Your task to perform on an android device: refresh tabs in the chrome app Image 0: 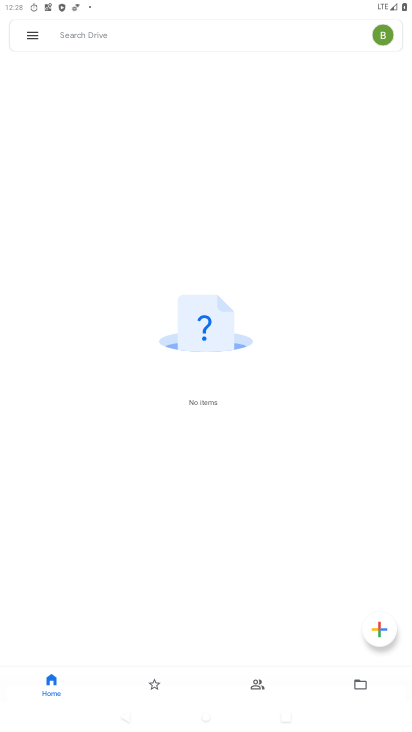
Step 0: press home button
Your task to perform on an android device: refresh tabs in the chrome app Image 1: 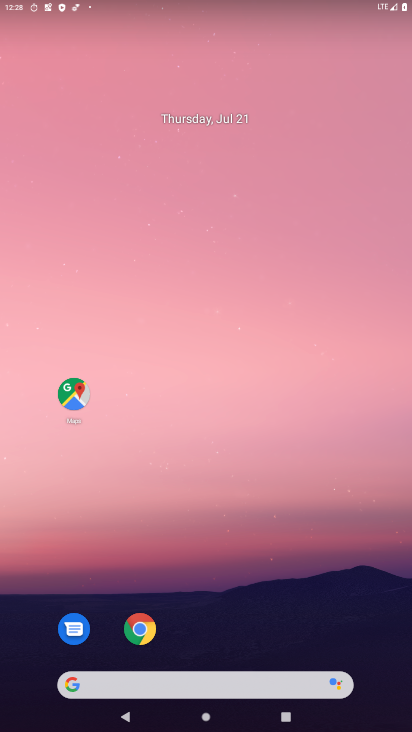
Step 1: drag from (237, 648) to (224, 7)
Your task to perform on an android device: refresh tabs in the chrome app Image 2: 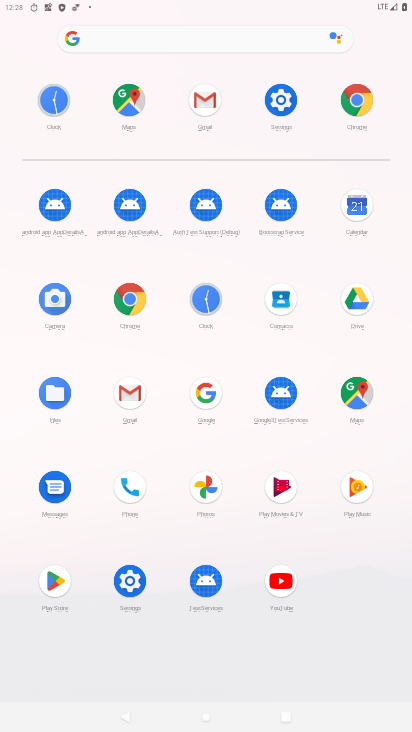
Step 2: click (131, 304)
Your task to perform on an android device: refresh tabs in the chrome app Image 3: 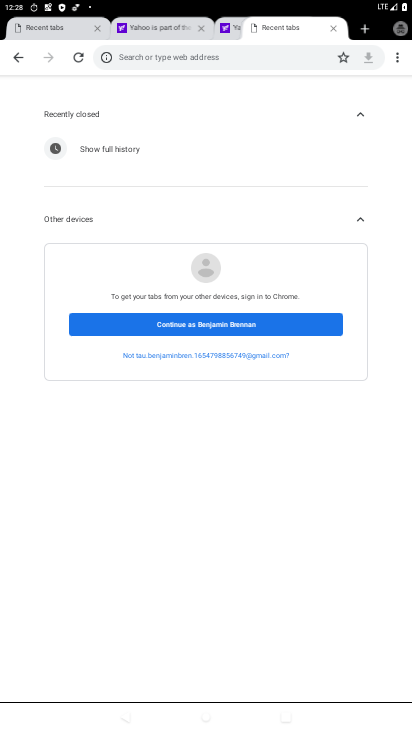
Step 3: drag from (393, 50) to (207, 144)
Your task to perform on an android device: refresh tabs in the chrome app Image 4: 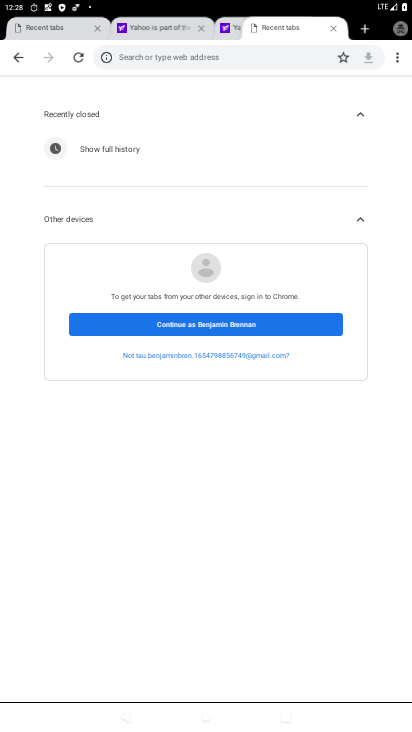
Step 4: click (80, 56)
Your task to perform on an android device: refresh tabs in the chrome app Image 5: 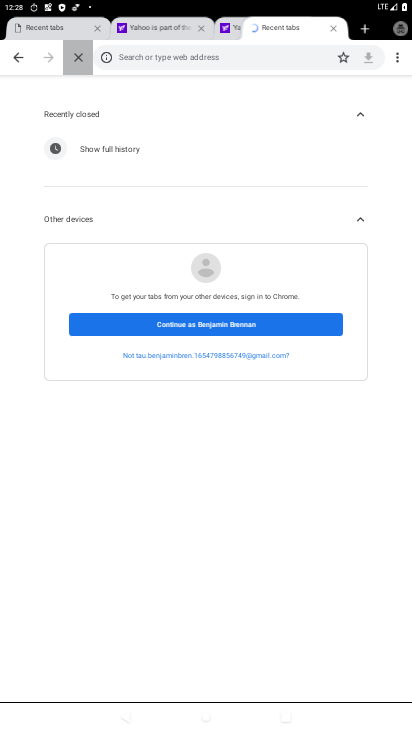
Step 5: click (73, 57)
Your task to perform on an android device: refresh tabs in the chrome app Image 6: 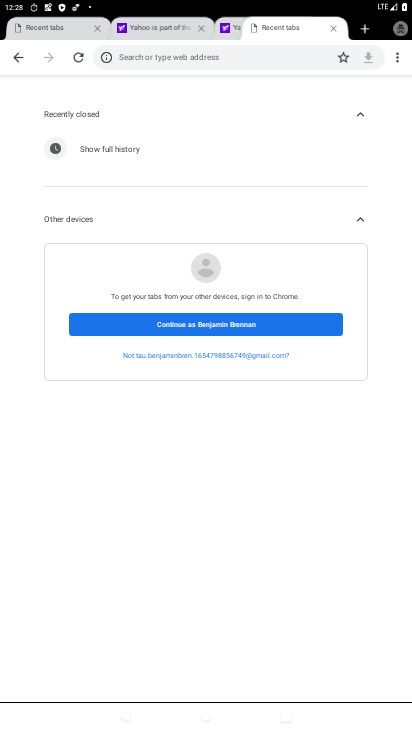
Step 6: task complete